Your task to perform on an android device: allow notifications from all sites in the chrome app Image 0: 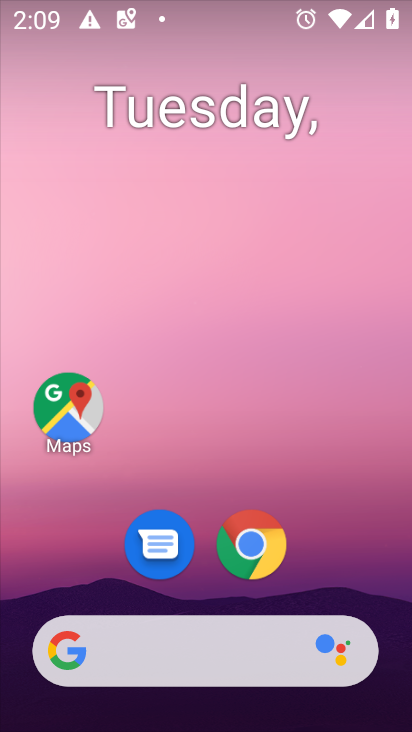
Step 0: drag from (348, 533) to (273, 5)
Your task to perform on an android device: allow notifications from all sites in the chrome app Image 1: 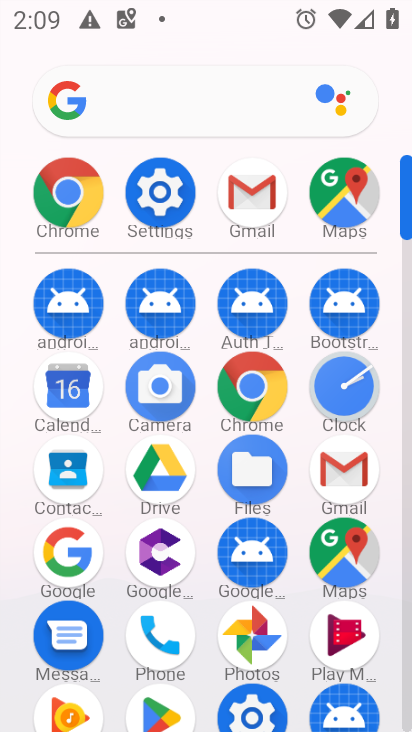
Step 1: click (256, 391)
Your task to perform on an android device: allow notifications from all sites in the chrome app Image 2: 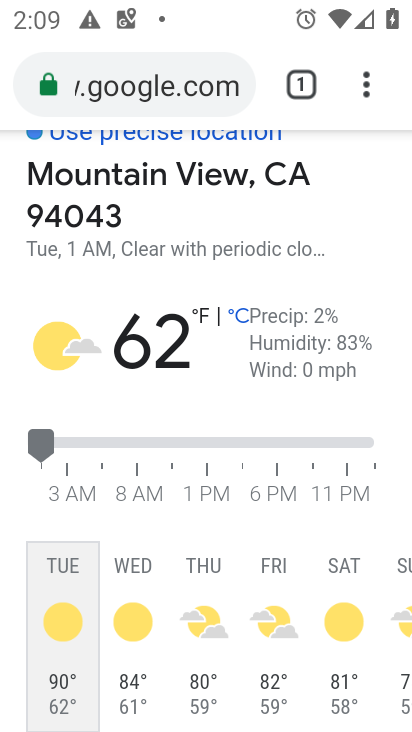
Step 2: drag from (368, 79) to (186, 617)
Your task to perform on an android device: allow notifications from all sites in the chrome app Image 3: 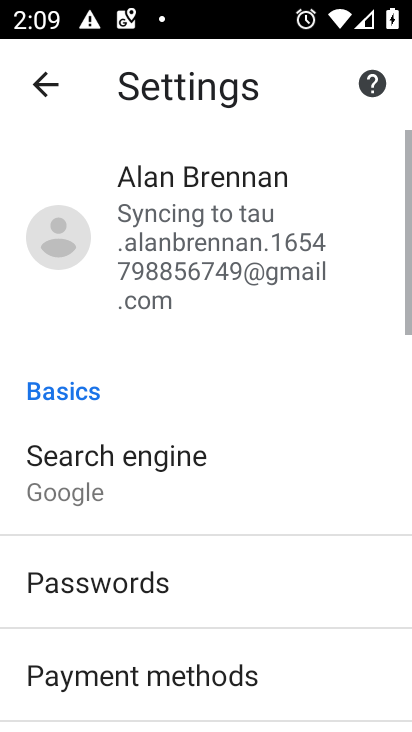
Step 3: drag from (253, 624) to (251, 73)
Your task to perform on an android device: allow notifications from all sites in the chrome app Image 4: 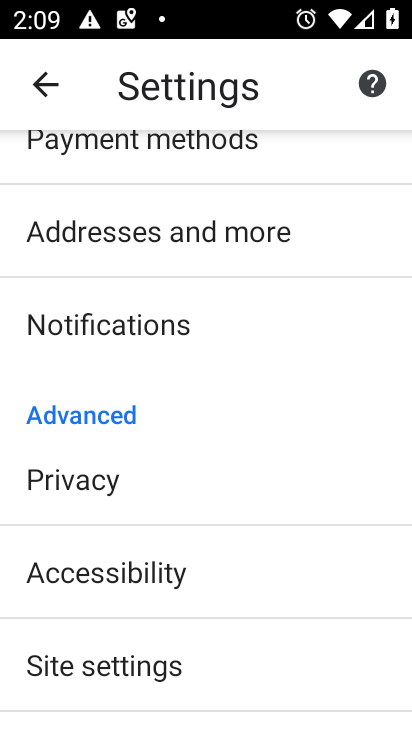
Step 4: click (153, 344)
Your task to perform on an android device: allow notifications from all sites in the chrome app Image 5: 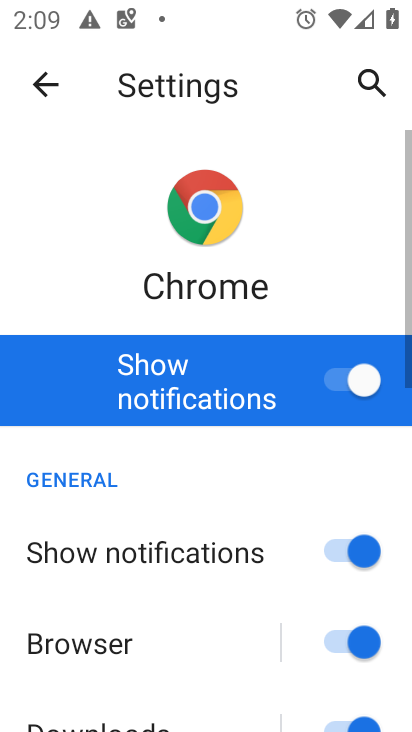
Step 5: task complete